Your task to perform on an android device: Open CNN.com Image 0: 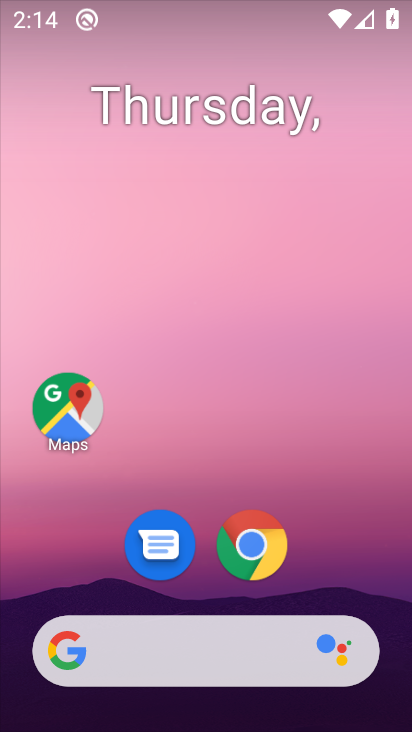
Step 0: drag from (187, 612) to (260, 154)
Your task to perform on an android device: Open CNN.com Image 1: 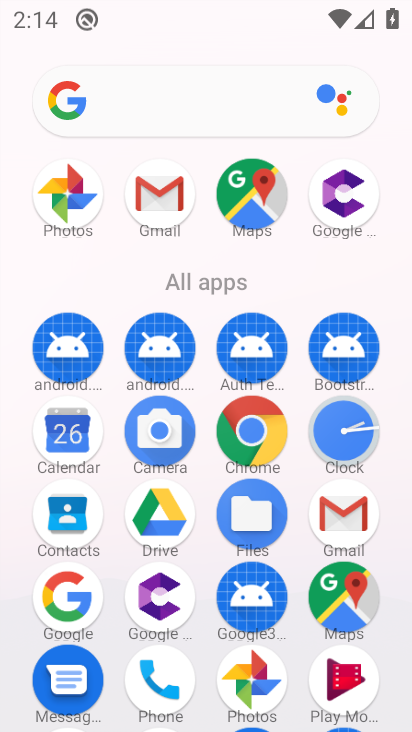
Step 1: click (70, 610)
Your task to perform on an android device: Open CNN.com Image 2: 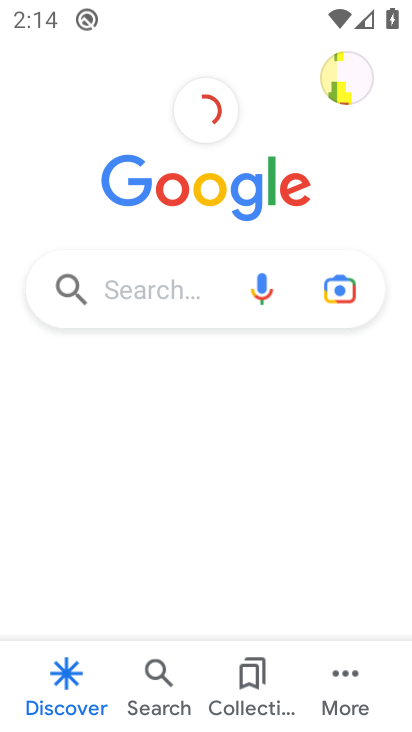
Step 2: click (168, 279)
Your task to perform on an android device: Open CNN.com Image 3: 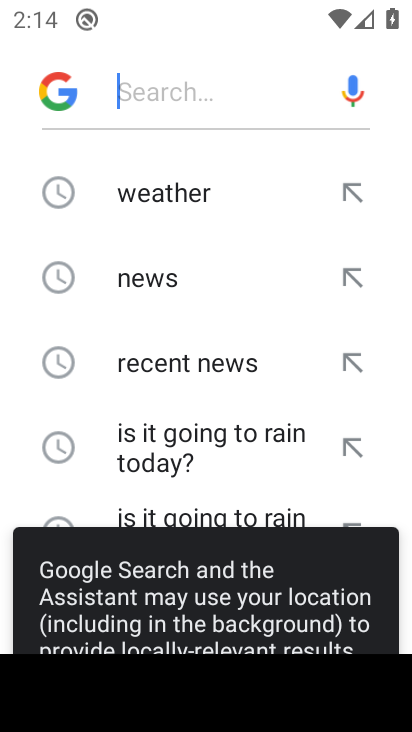
Step 3: drag from (195, 470) to (260, 169)
Your task to perform on an android device: Open CNN.com Image 4: 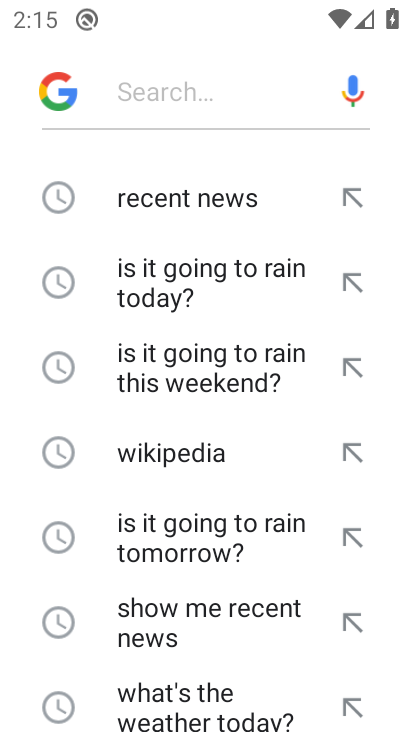
Step 4: drag from (207, 488) to (271, 155)
Your task to perform on an android device: Open CNN.com Image 5: 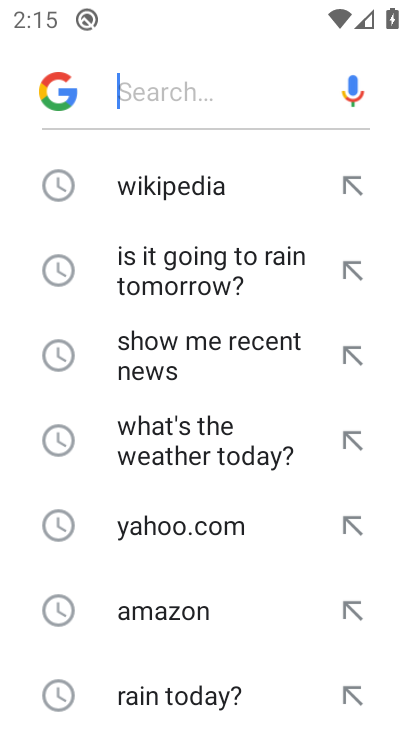
Step 5: drag from (170, 584) to (237, 318)
Your task to perform on an android device: Open CNN.com Image 6: 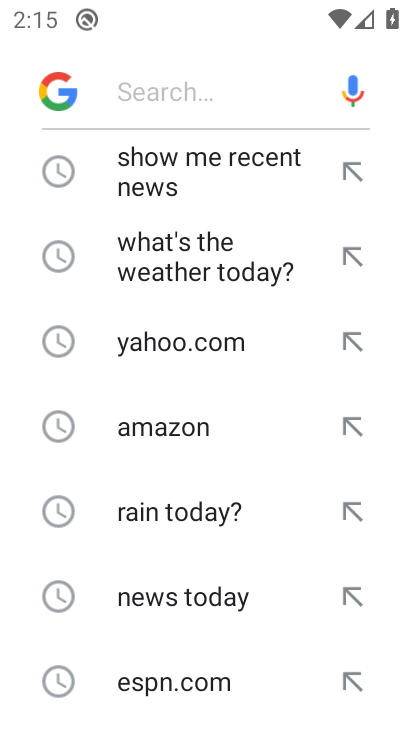
Step 6: drag from (179, 676) to (235, 303)
Your task to perform on an android device: Open CNN.com Image 7: 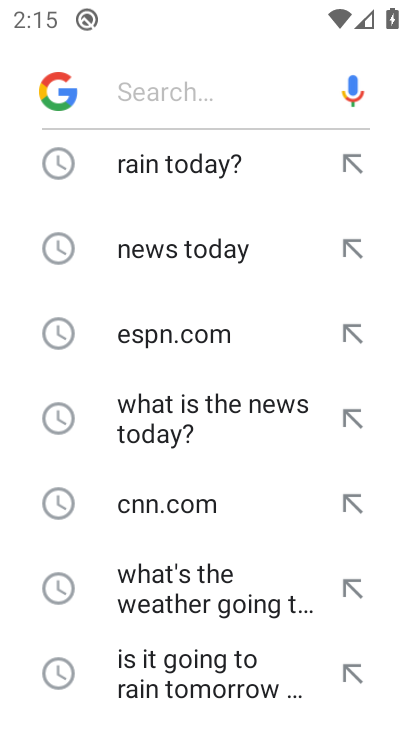
Step 7: click (196, 505)
Your task to perform on an android device: Open CNN.com Image 8: 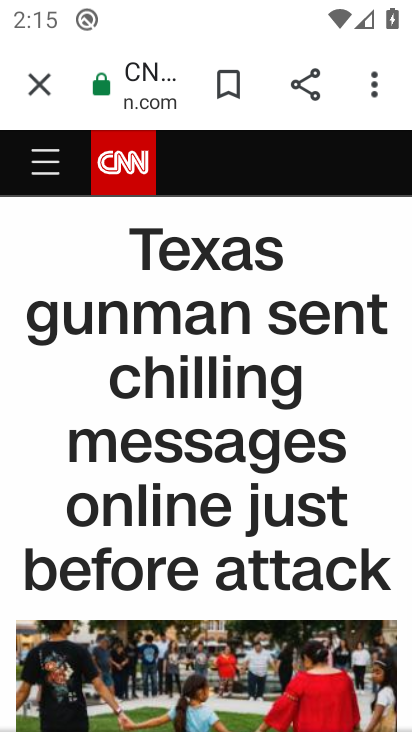
Step 8: task complete